Your task to perform on an android device: What's on my calendar today? Image 0: 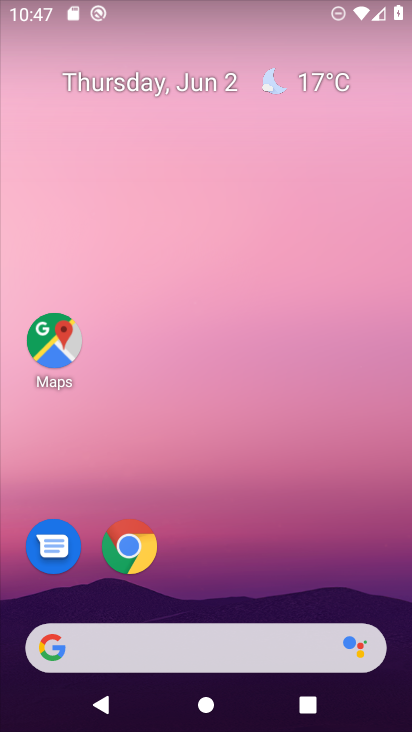
Step 0: drag from (265, 573) to (240, 26)
Your task to perform on an android device: What's on my calendar today? Image 1: 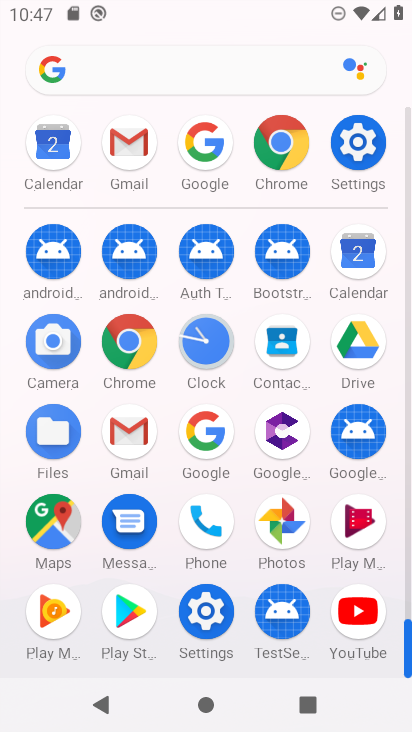
Step 1: click (359, 249)
Your task to perform on an android device: What's on my calendar today? Image 2: 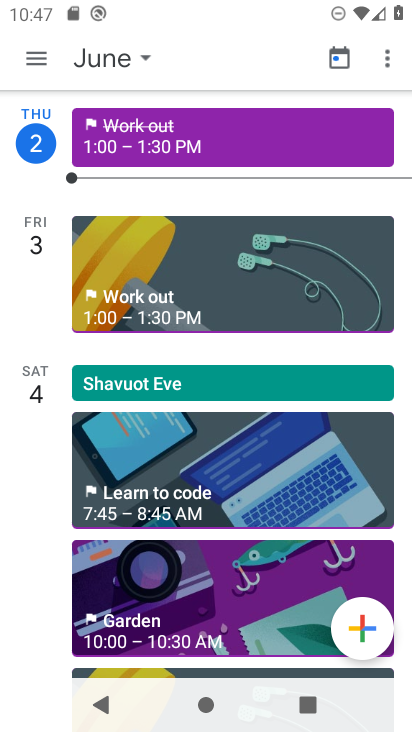
Step 2: click (109, 55)
Your task to perform on an android device: What's on my calendar today? Image 3: 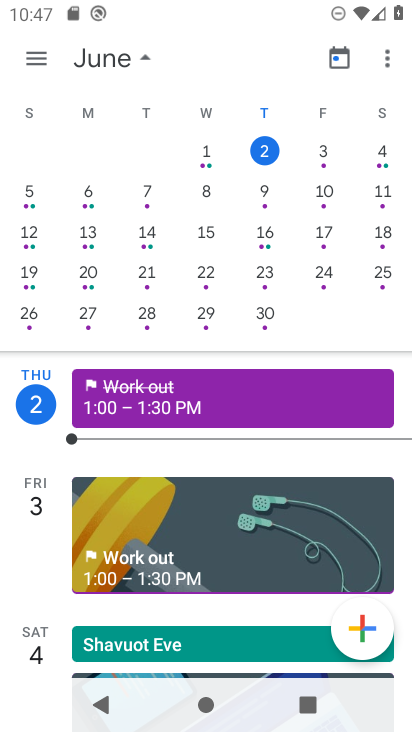
Step 3: click (326, 60)
Your task to perform on an android device: What's on my calendar today? Image 4: 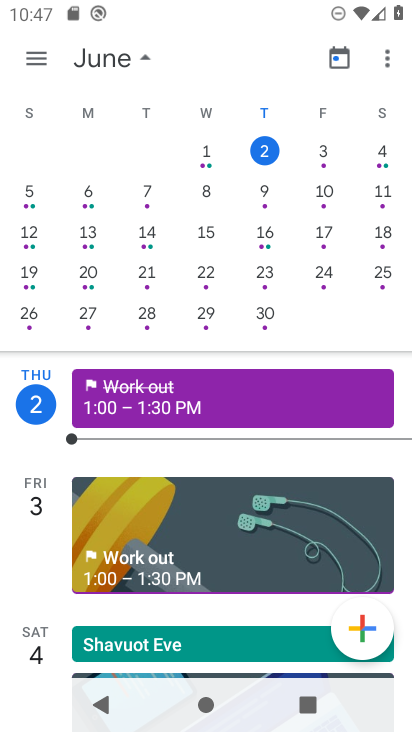
Step 4: click (265, 145)
Your task to perform on an android device: What's on my calendar today? Image 5: 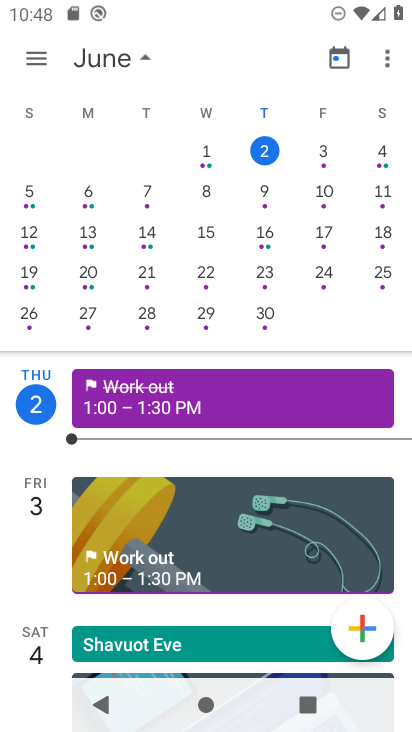
Step 5: click (38, 44)
Your task to perform on an android device: What's on my calendar today? Image 6: 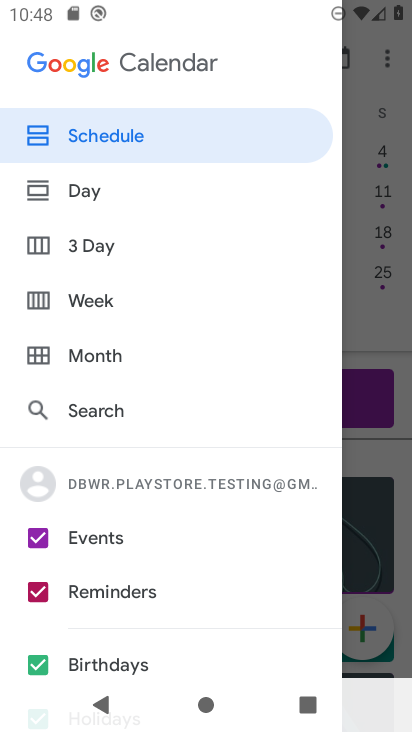
Step 6: click (96, 196)
Your task to perform on an android device: What's on my calendar today? Image 7: 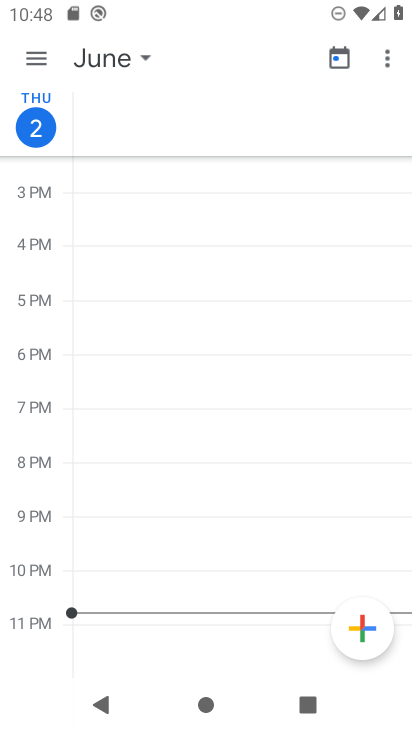
Step 7: task complete